Your task to perform on an android device: Search for sushi restaurants on Maps Image 0: 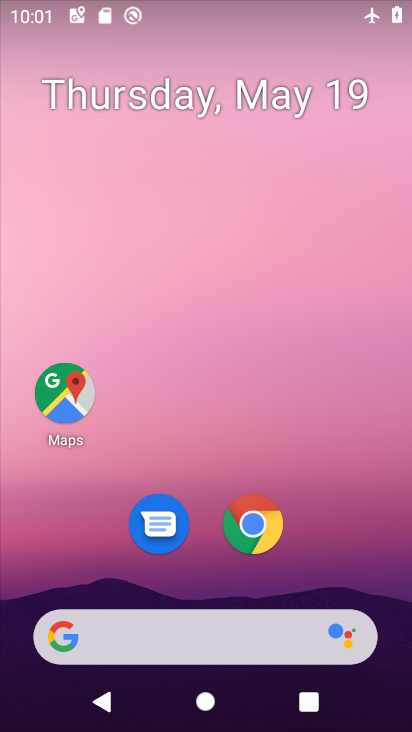
Step 0: click (54, 381)
Your task to perform on an android device: Search for sushi restaurants on Maps Image 1: 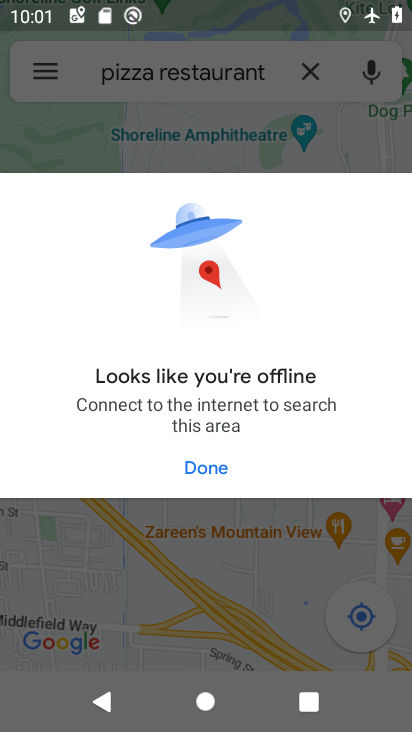
Step 1: click (309, 76)
Your task to perform on an android device: Search for sushi restaurants on Maps Image 2: 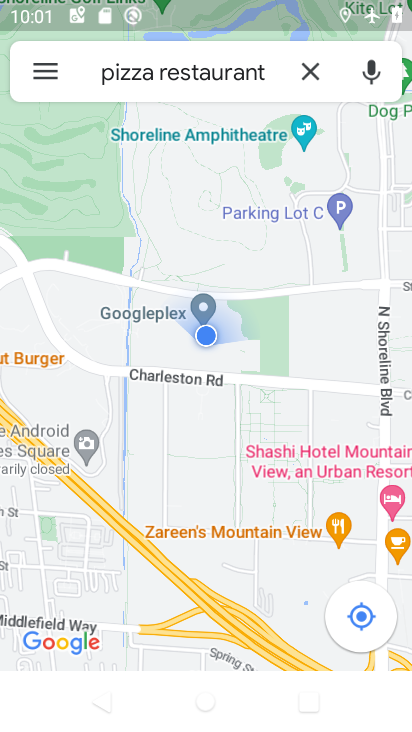
Step 2: click (309, 73)
Your task to perform on an android device: Search for sushi restaurants on Maps Image 3: 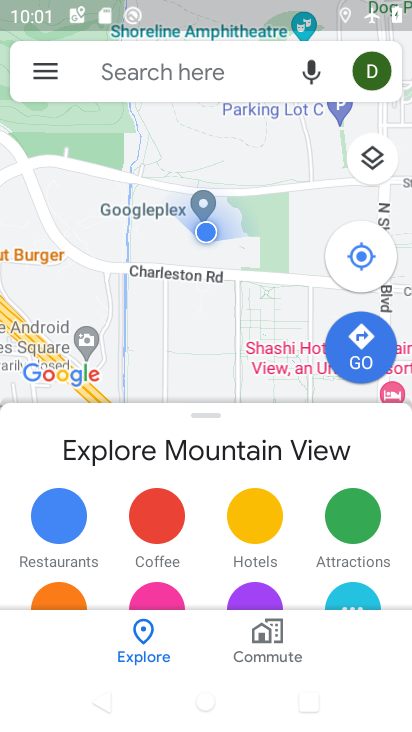
Step 3: click (258, 68)
Your task to perform on an android device: Search for sushi restaurants on Maps Image 4: 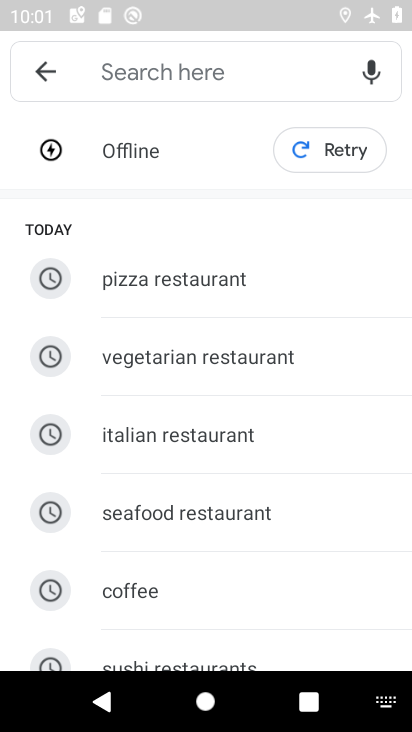
Step 4: drag from (221, 498) to (209, 310)
Your task to perform on an android device: Search for sushi restaurants on Maps Image 5: 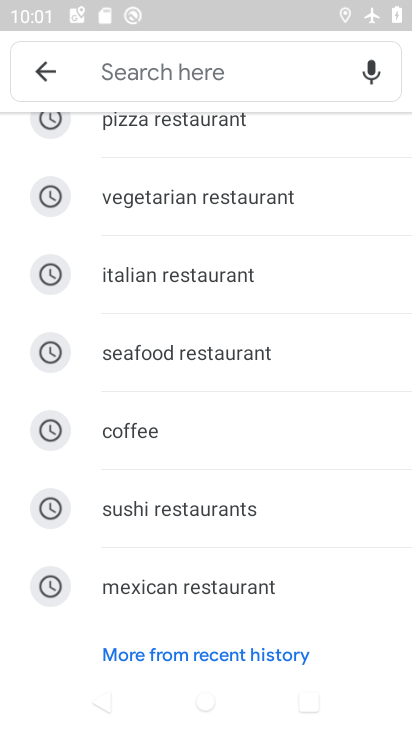
Step 5: click (209, 501)
Your task to perform on an android device: Search for sushi restaurants on Maps Image 6: 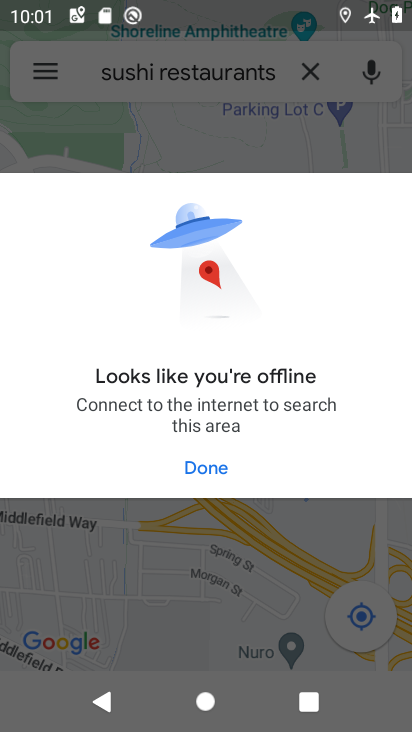
Step 6: task complete